Your task to perform on an android device: Install the eBay app Image 0: 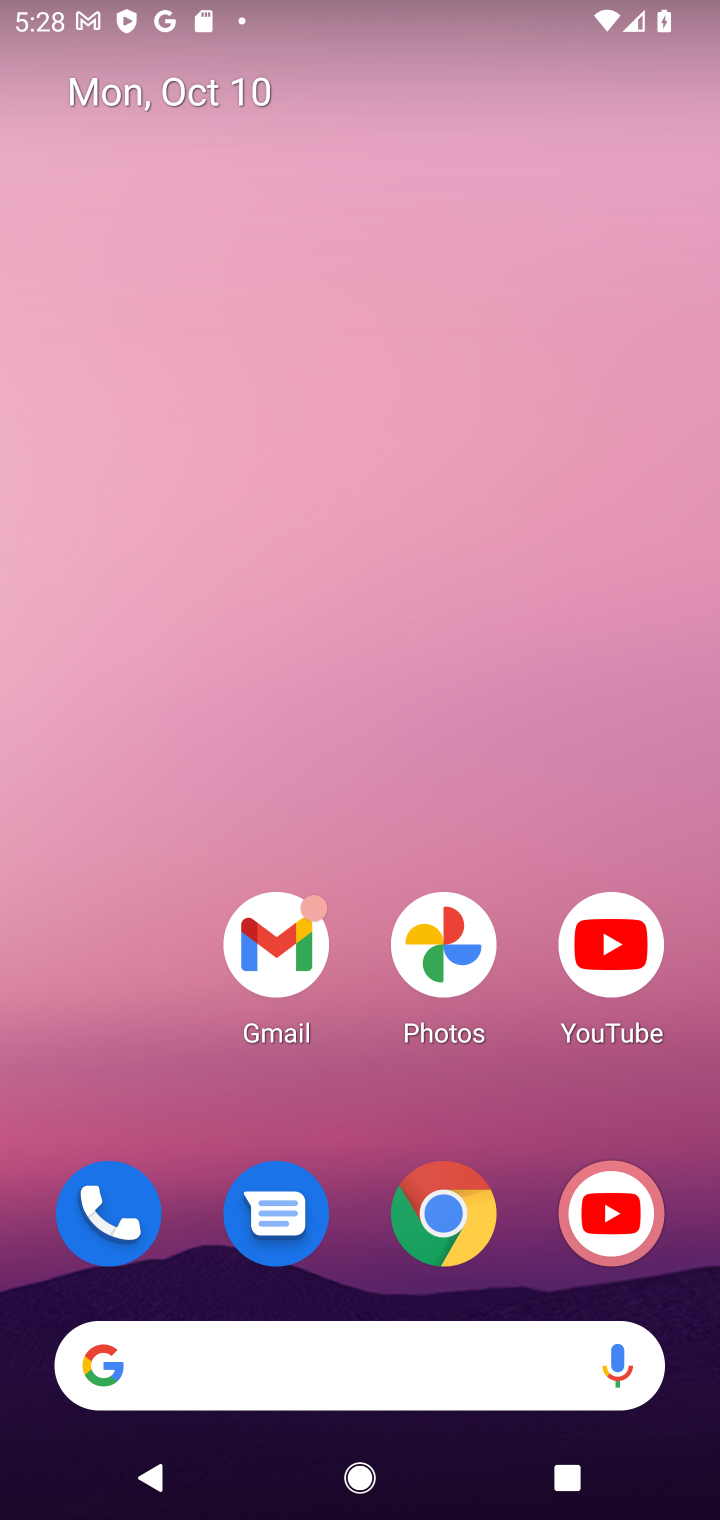
Step 0: drag from (428, 806) to (437, 456)
Your task to perform on an android device: Install the eBay app Image 1: 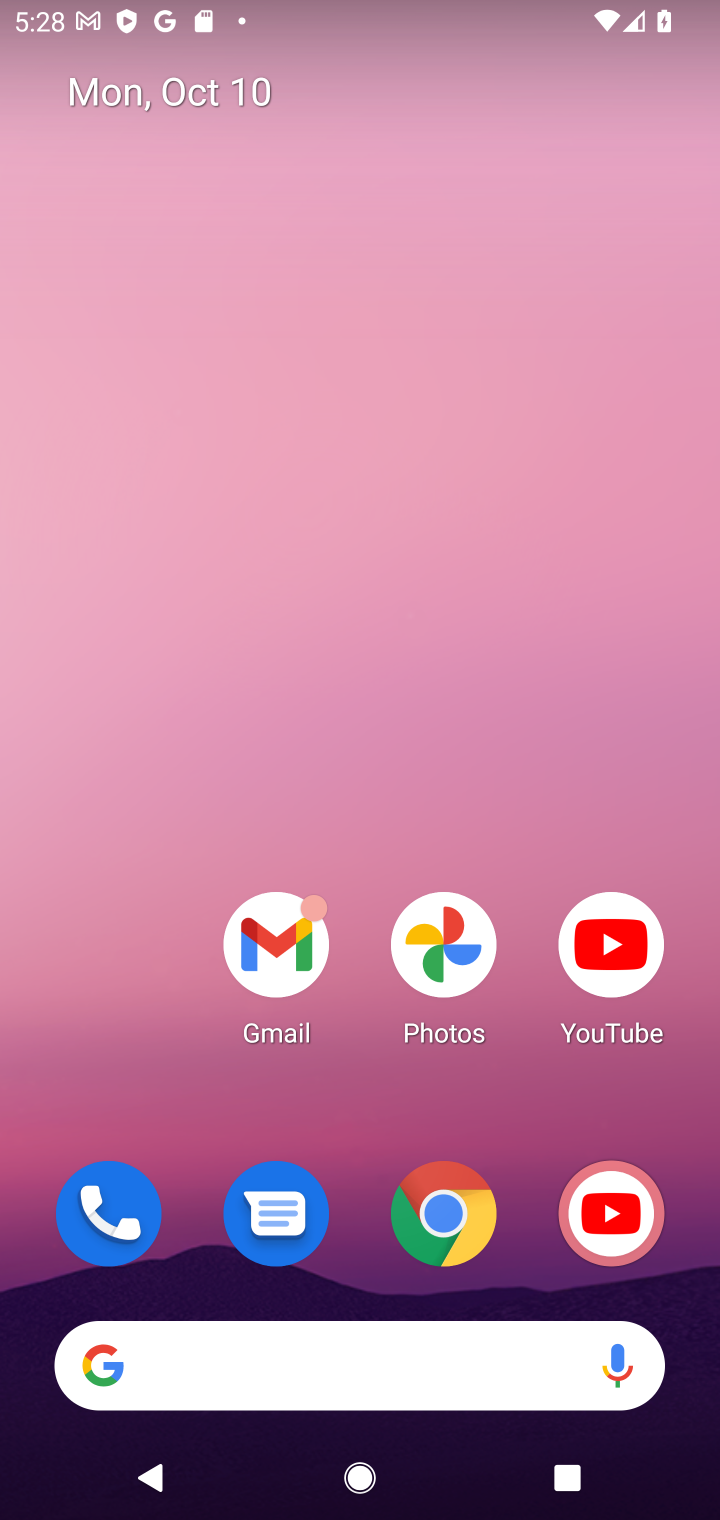
Step 1: drag from (368, 1061) to (368, 426)
Your task to perform on an android device: Install the eBay app Image 2: 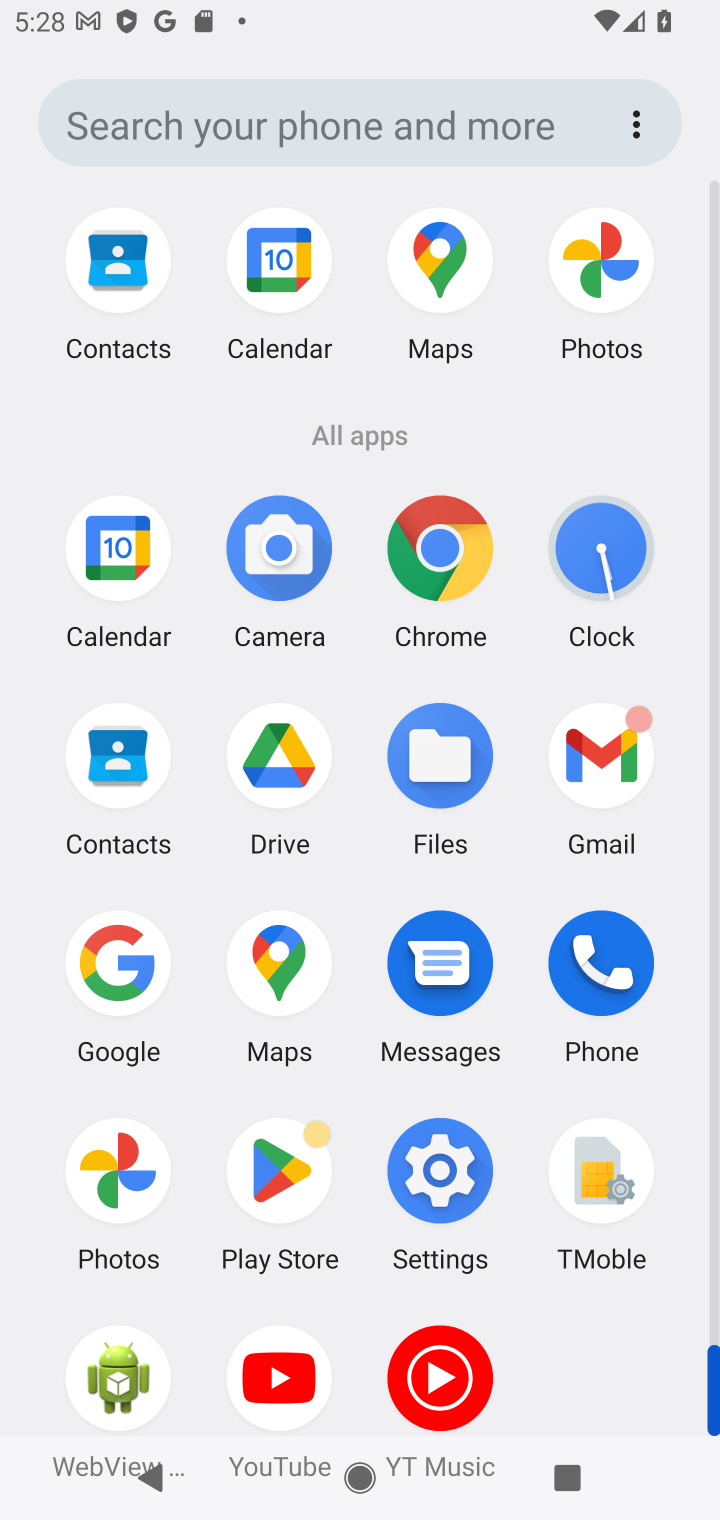
Step 2: click (282, 1169)
Your task to perform on an android device: Install the eBay app Image 3: 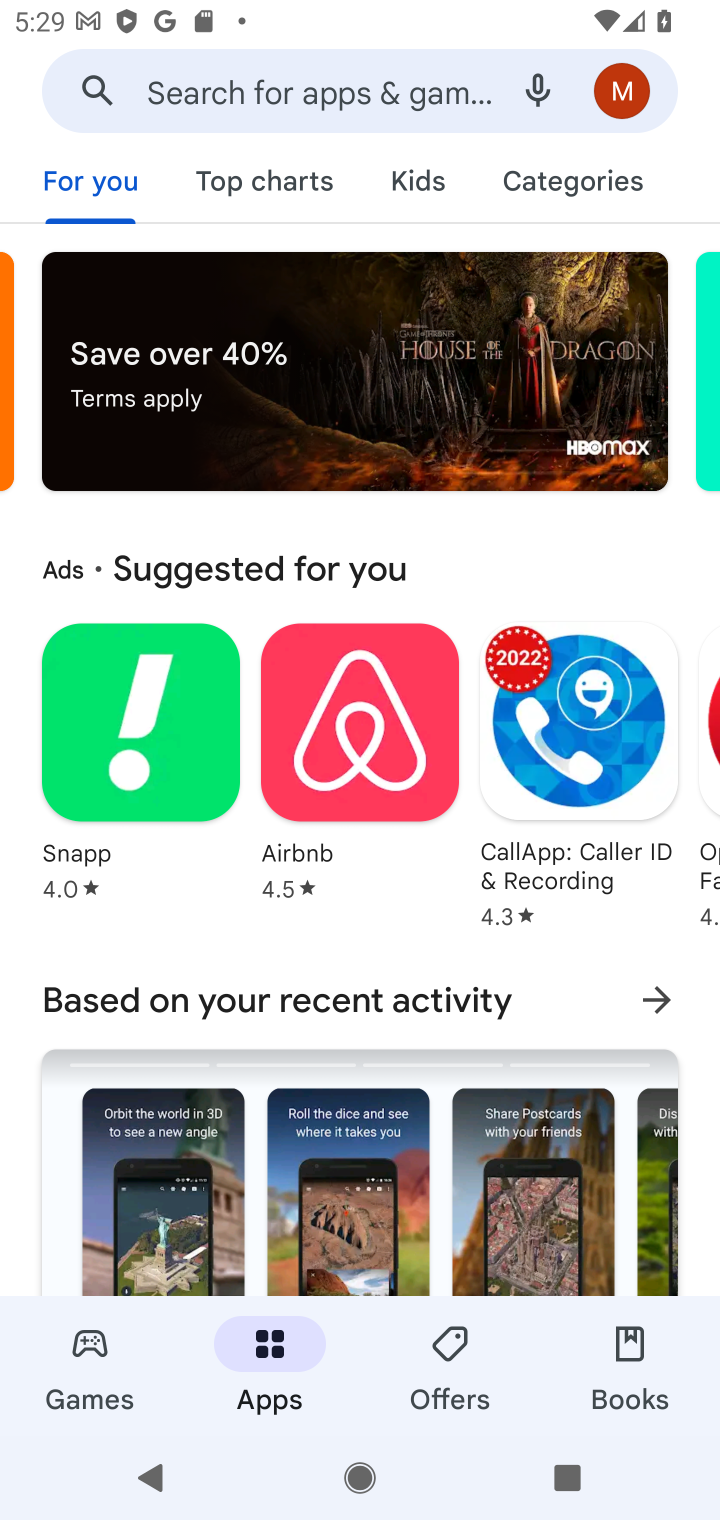
Step 3: click (322, 109)
Your task to perform on an android device: Install the eBay app Image 4: 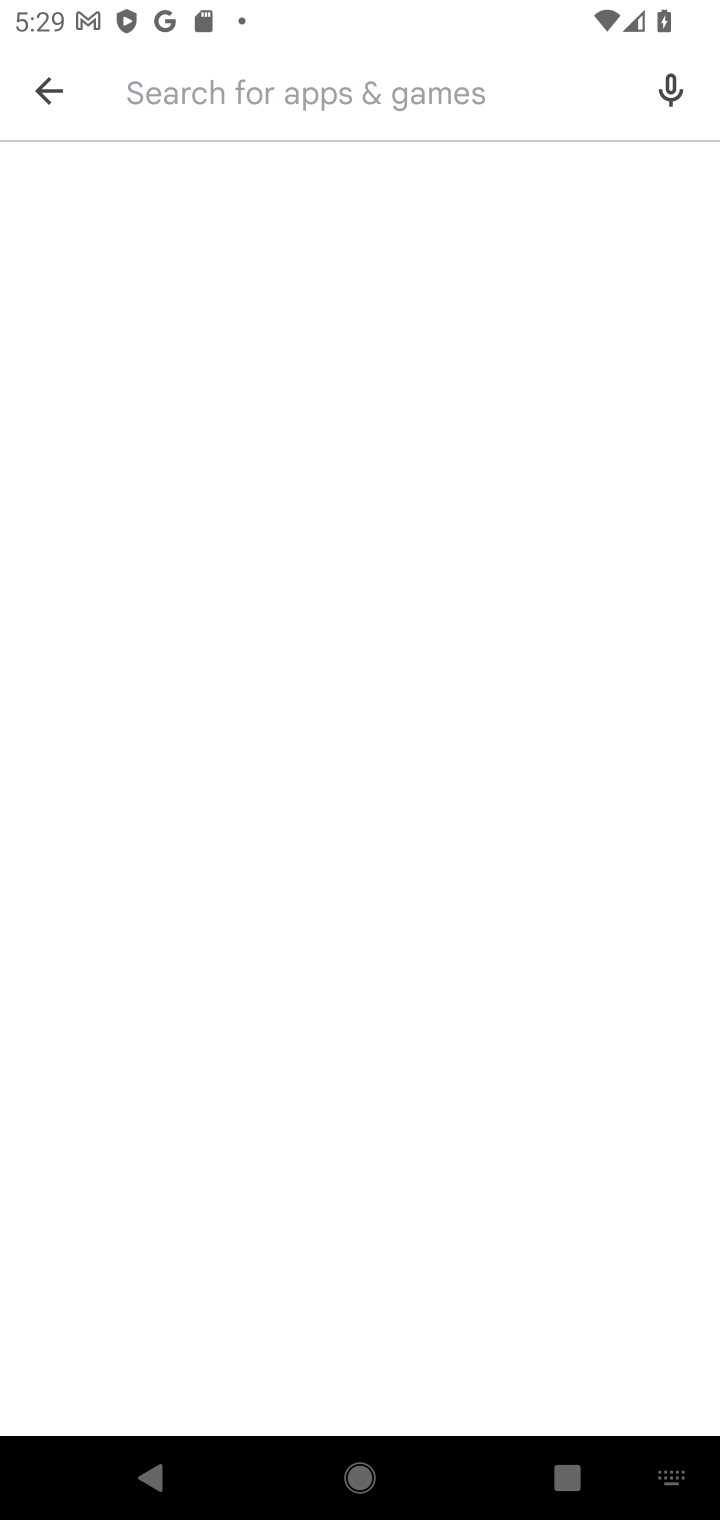
Step 4: type "eBay"
Your task to perform on an android device: Install the eBay app Image 5: 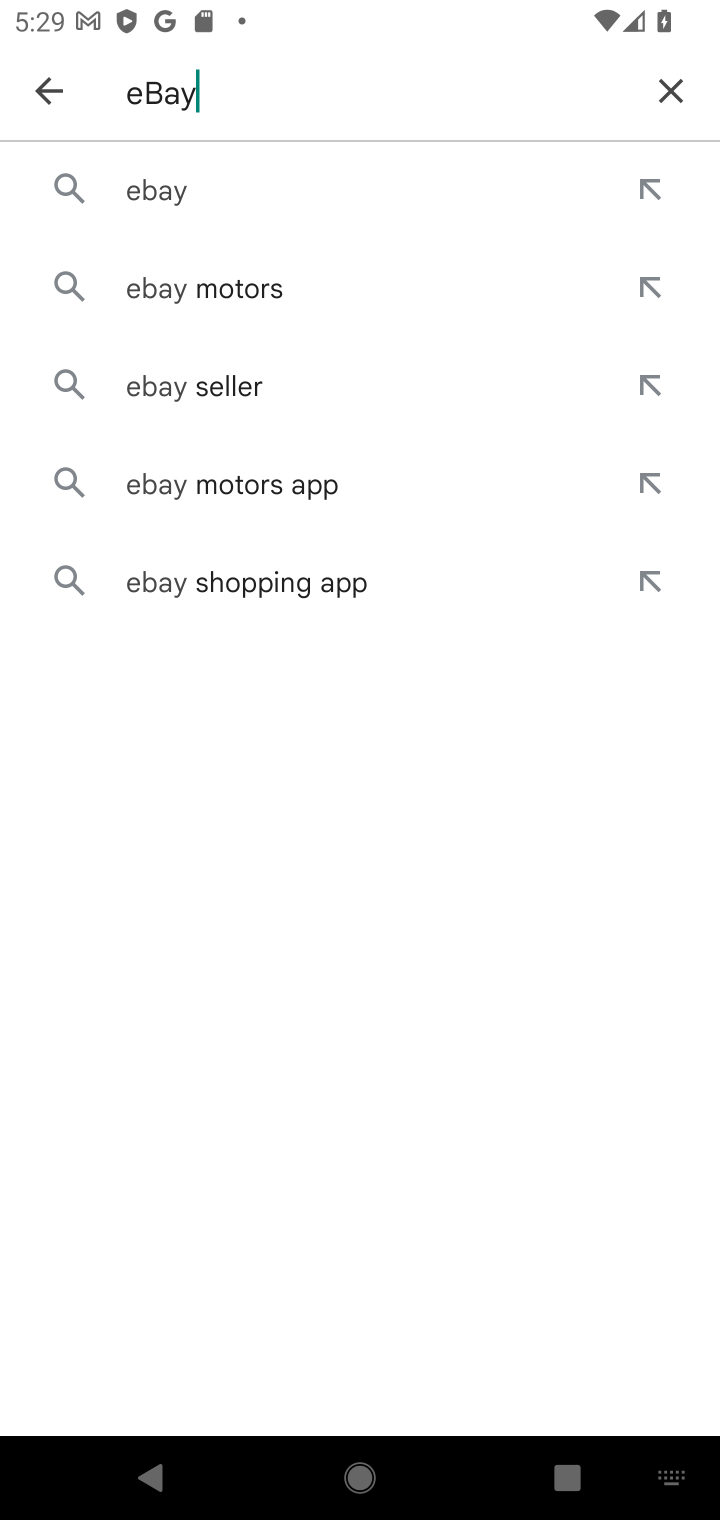
Step 5: click (214, 190)
Your task to perform on an android device: Install the eBay app Image 6: 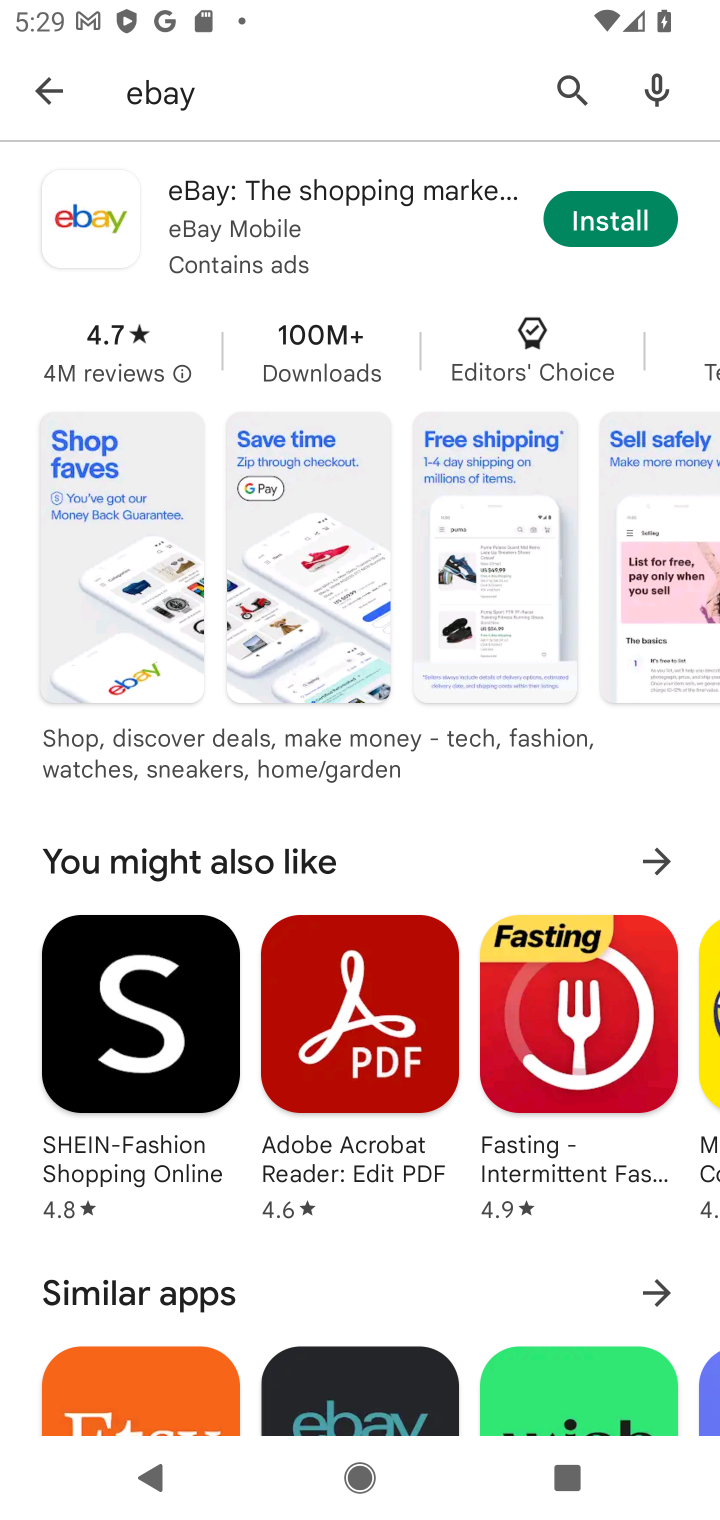
Step 6: click (627, 216)
Your task to perform on an android device: Install the eBay app Image 7: 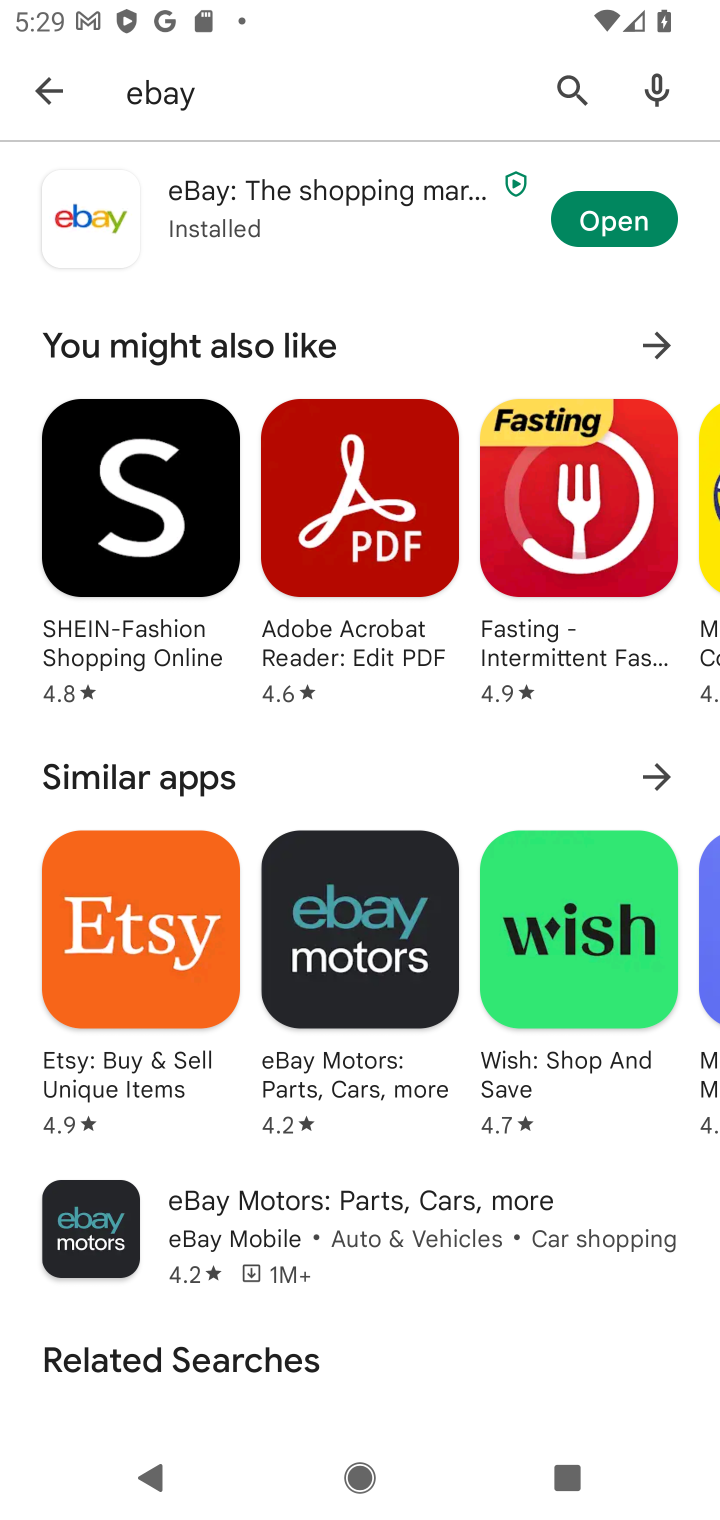
Step 7: task complete